Your task to perform on an android device: Open Android settings Image 0: 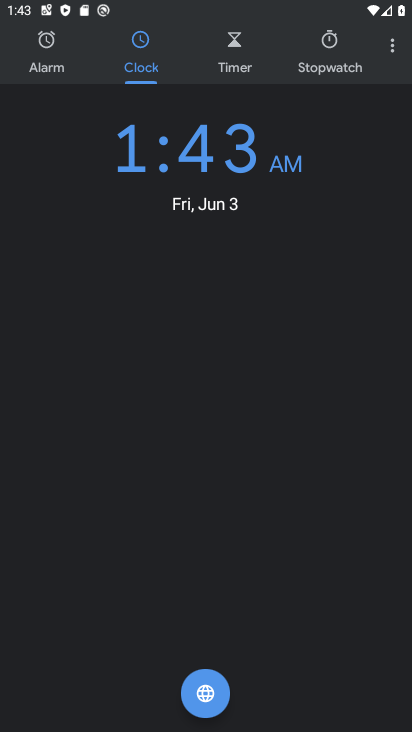
Step 0: drag from (268, 689) to (172, 173)
Your task to perform on an android device: Open Android settings Image 1: 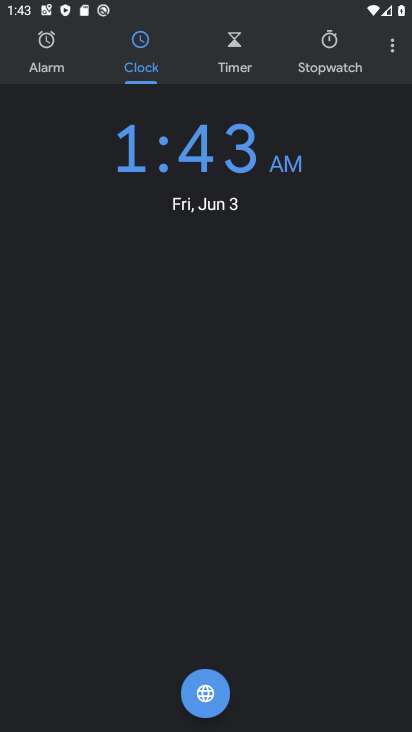
Step 1: press home button
Your task to perform on an android device: Open Android settings Image 2: 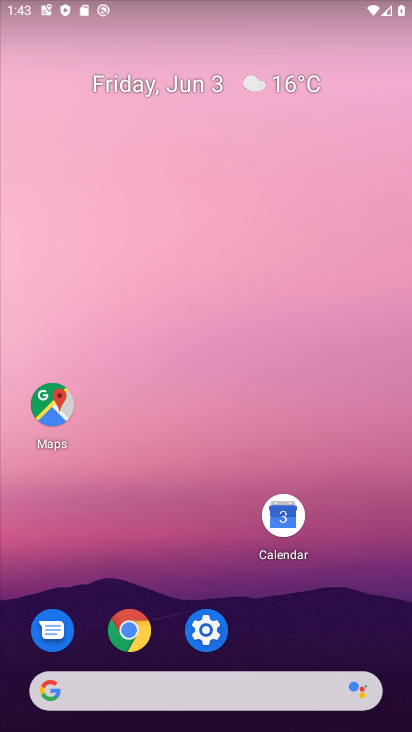
Step 2: drag from (263, 662) to (174, 240)
Your task to perform on an android device: Open Android settings Image 3: 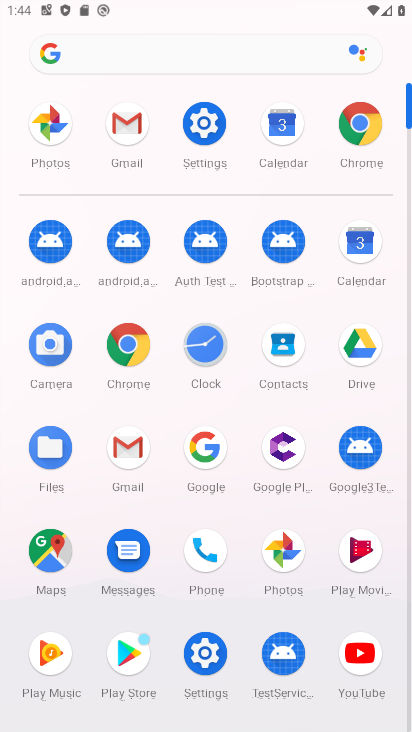
Step 3: click (211, 645)
Your task to perform on an android device: Open Android settings Image 4: 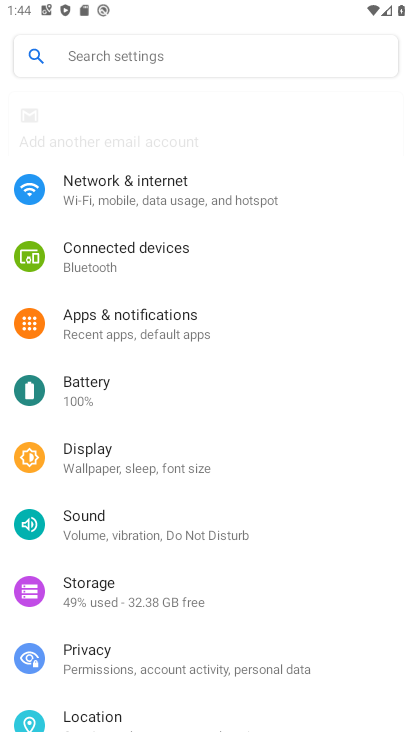
Step 4: click (132, 66)
Your task to perform on an android device: Open Android settings Image 5: 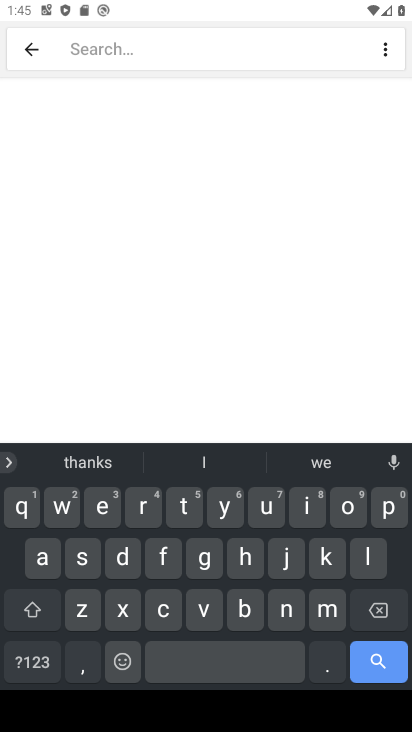
Step 5: click (49, 569)
Your task to perform on an android device: Open Android settings Image 6: 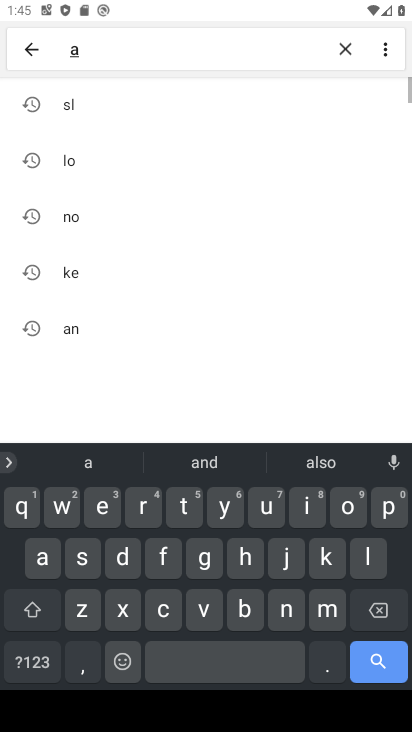
Step 6: click (292, 609)
Your task to perform on an android device: Open Android settings Image 7: 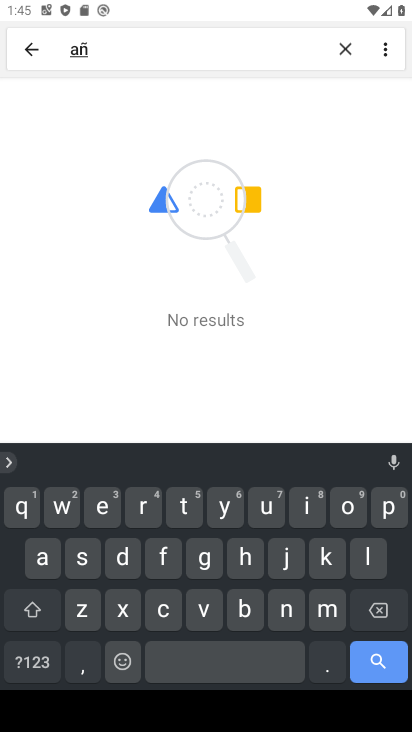
Step 7: click (364, 609)
Your task to perform on an android device: Open Android settings Image 8: 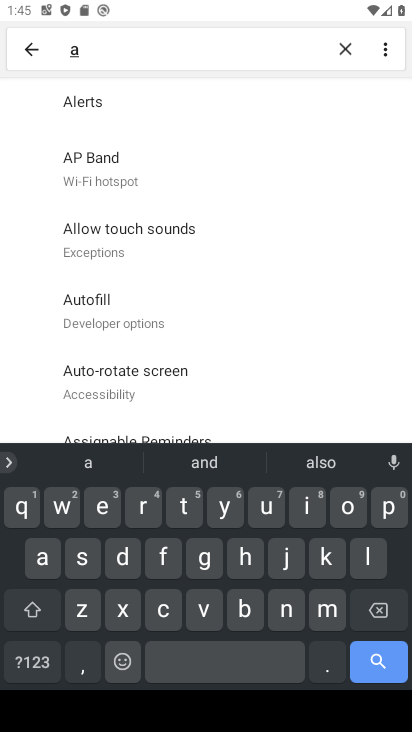
Step 8: click (288, 615)
Your task to perform on an android device: Open Android settings Image 9: 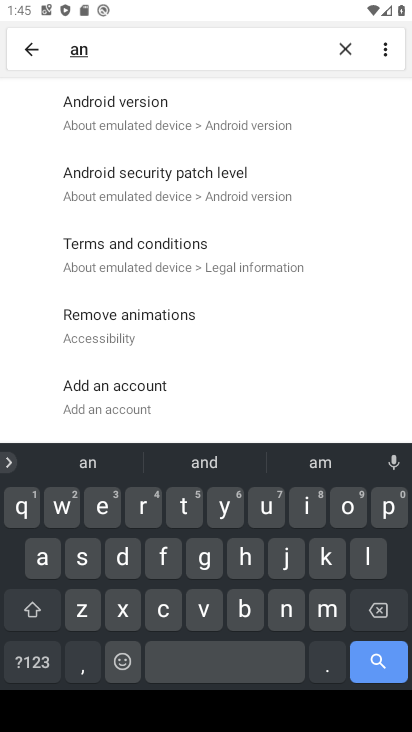
Step 9: click (144, 106)
Your task to perform on an android device: Open Android settings Image 10: 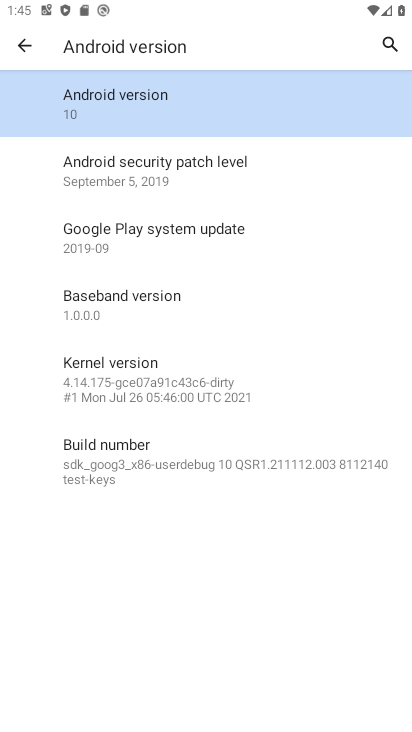
Step 10: click (135, 107)
Your task to perform on an android device: Open Android settings Image 11: 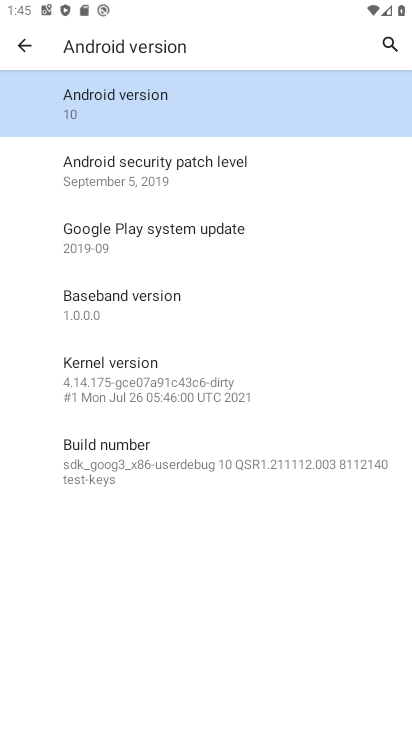
Step 11: task complete